Your task to perform on an android device: visit the assistant section in the google photos Image 0: 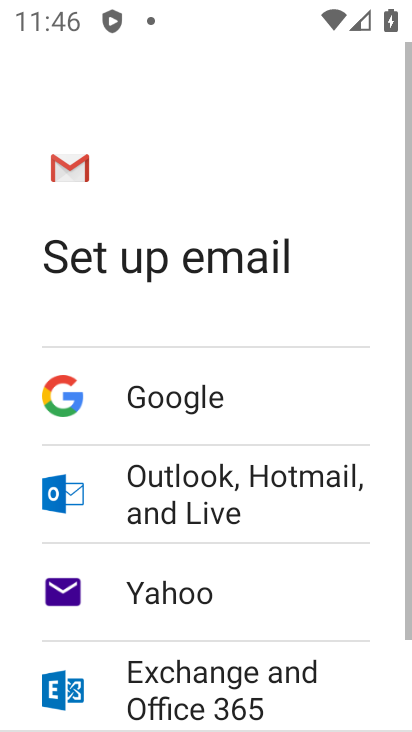
Step 0: press home button
Your task to perform on an android device: visit the assistant section in the google photos Image 1: 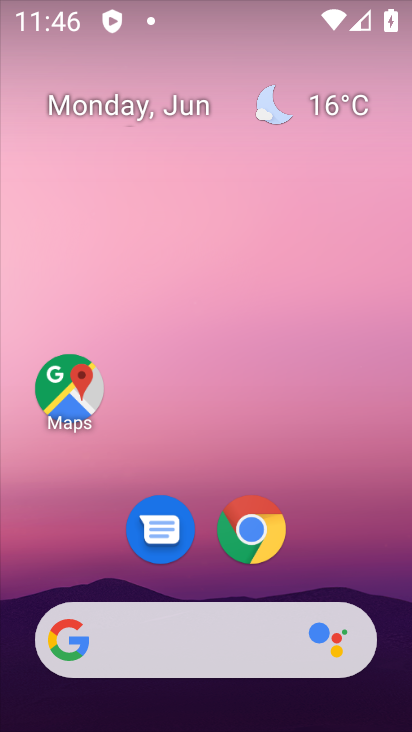
Step 1: drag from (91, 588) to (180, 78)
Your task to perform on an android device: visit the assistant section in the google photos Image 2: 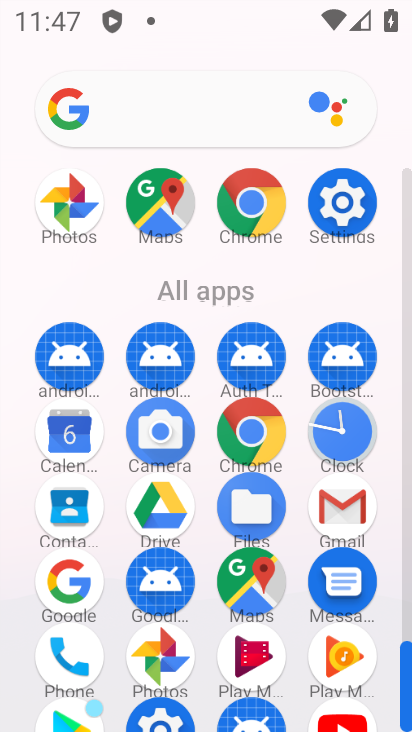
Step 2: click (159, 652)
Your task to perform on an android device: visit the assistant section in the google photos Image 3: 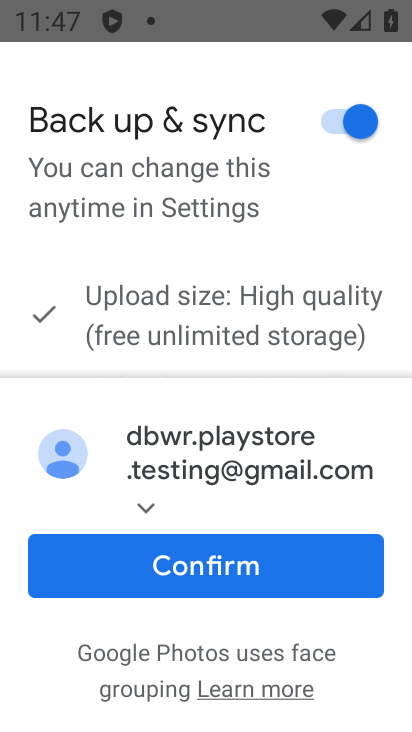
Step 3: click (270, 562)
Your task to perform on an android device: visit the assistant section in the google photos Image 4: 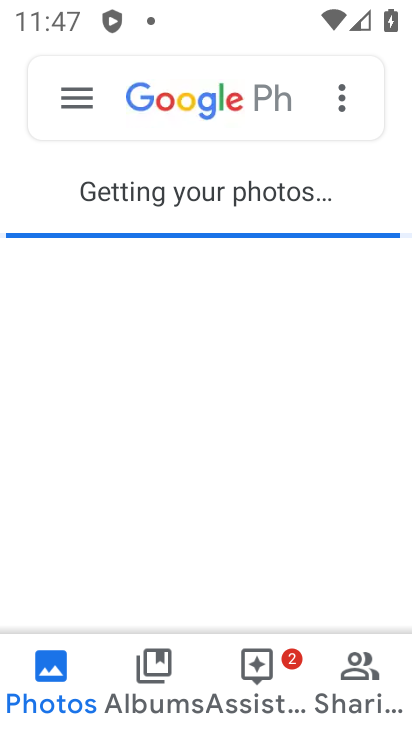
Step 4: click (280, 668)
Your task to perform on an android device: visit the assistant section in the google photos Image 5: 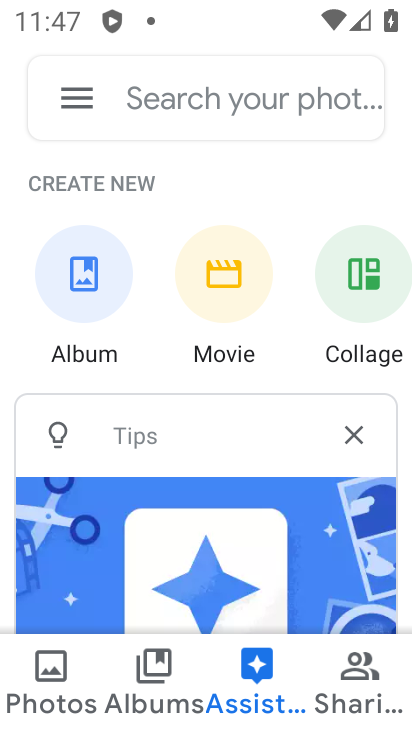
Step 5: task complete